Your task to perform on an android device: turn notification dots on Image 0: 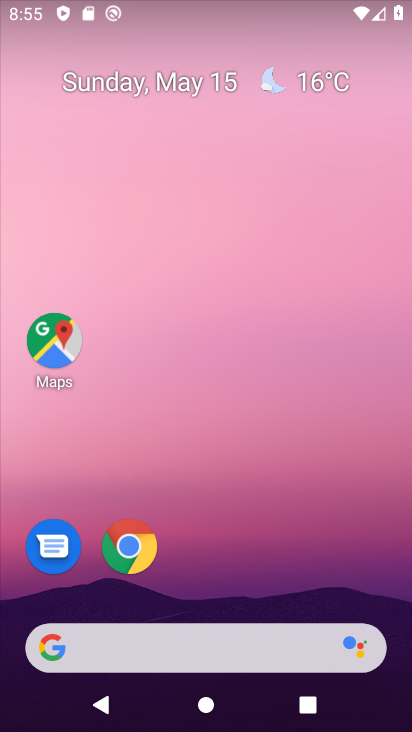
Step 0: drag from (187, 602) to (249, 133)
Your task to perform on an android device: turn notification dots on Image 1: 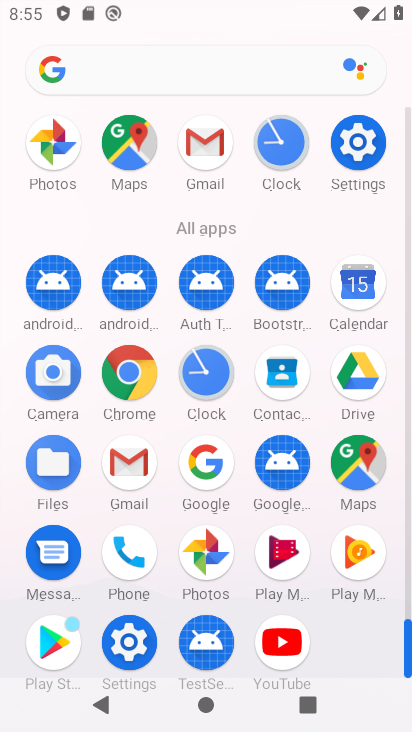
Step 1: drag from (187, 636) to (225, 467)
Your task to perform on an android device: turn notification dots on Image 2: 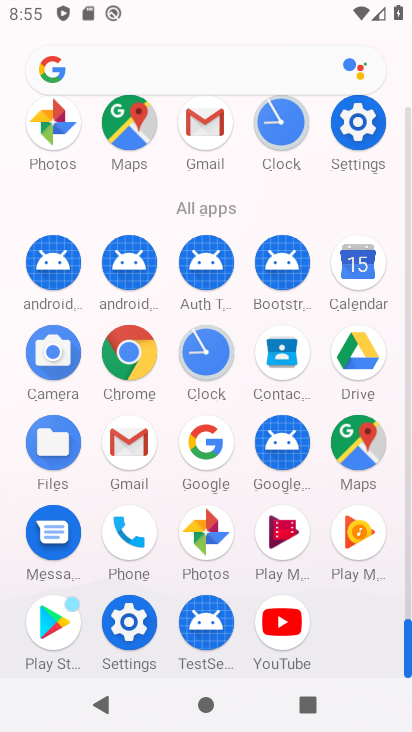
Step 2: click (131, 617)
Your task to perform on an android device: turn notification dots on Image 3: 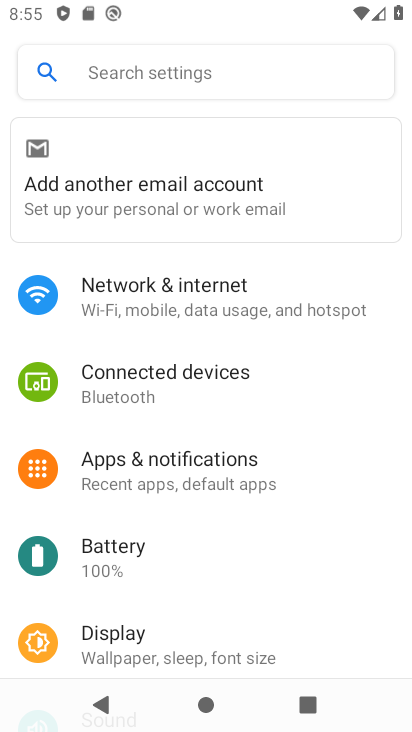
Step 3: click (212, 469)
Your task to perform on an android device: turn notification dots on Image 4: 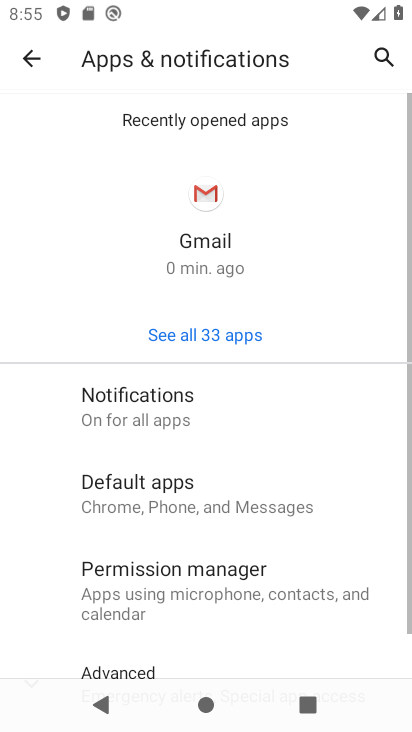
Step 4: drag from (215, 602) to (265, 336)
Your task to perform on an android device: turn notification dots on Image 5: 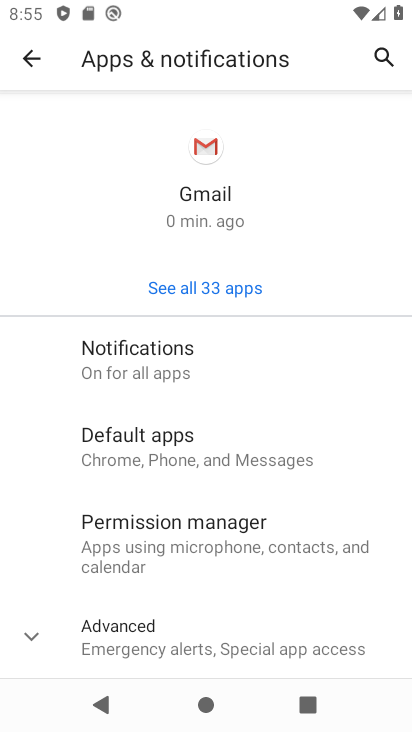
Step 5: click (214, 369)
Your task to perform on an android device: turn notification dots on Image 6: 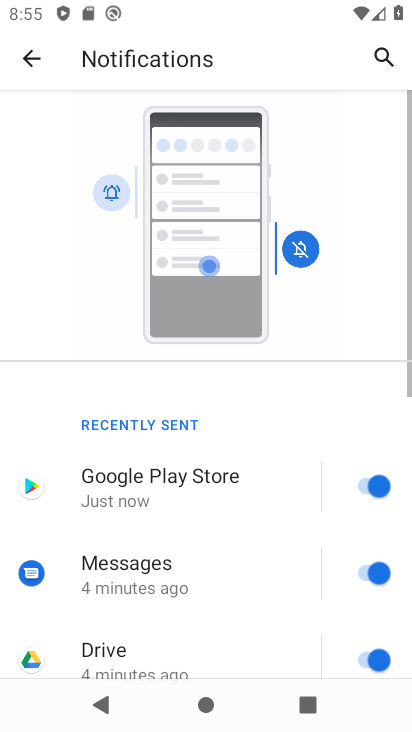
Step 6: drag from (206, 621) to (290, 122)
Your task to perform on an android device: turn notification dots on Image 7: 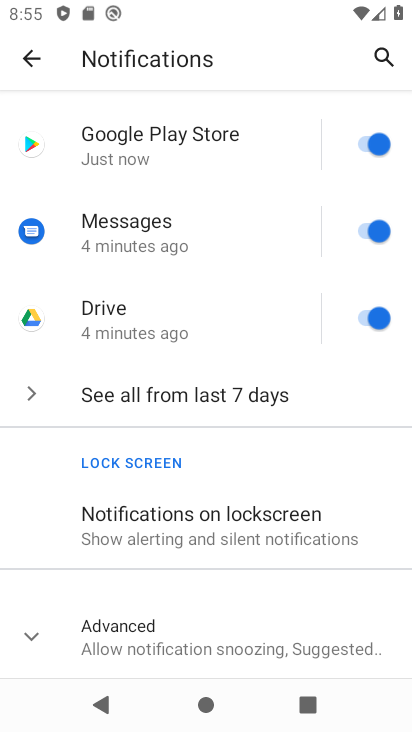
Step 7: click (192, 628)
Your task to perform on an android device: turn notification dots on Image 8: 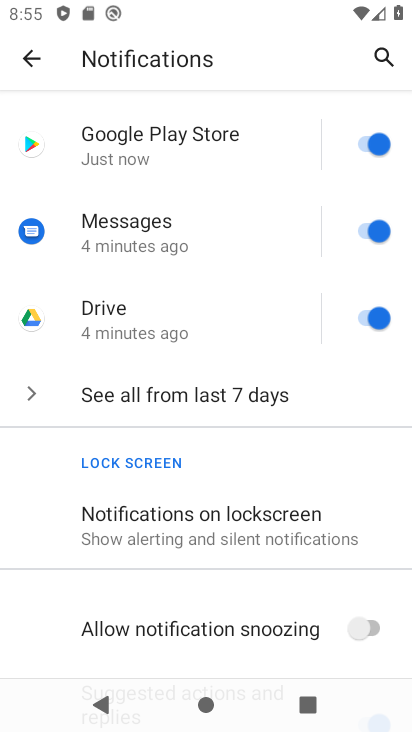
Step 8: task complete